Your task to perform on an android device: delete browsing data in the chrome app Image 0: 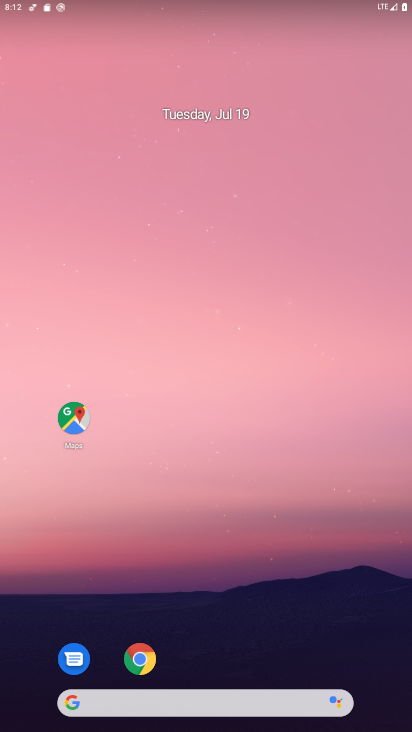
Step 0: click (145, 658)
Your task to perform on an android device: delete browsing data in the chrome app Image 1: 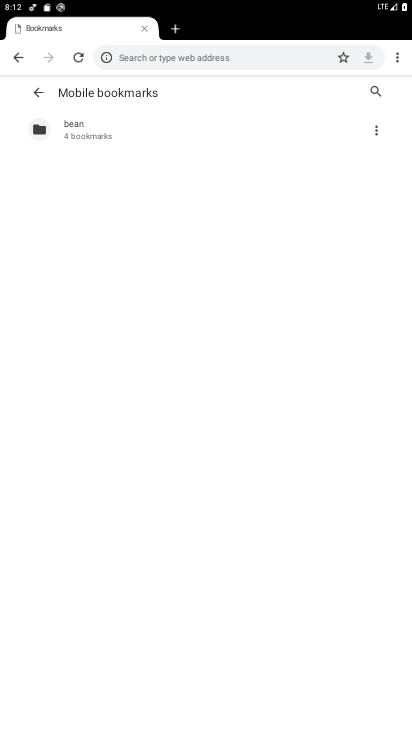
Step 1: click (394, 51)
Your task to perform on an android device: delete browsing data in the chrome app Image 2: 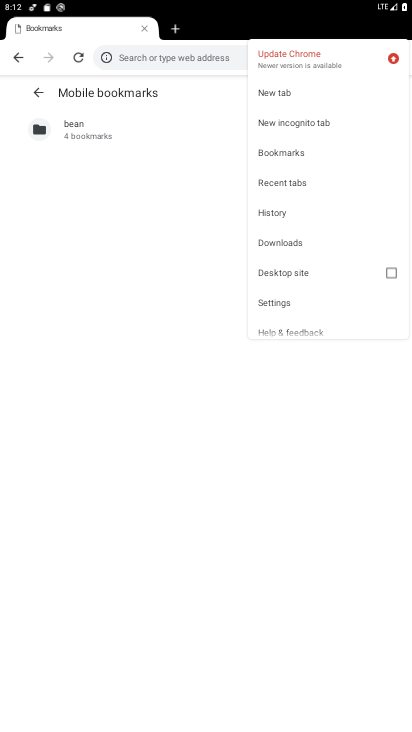
Step 2: click (281, 209)
Your task to perform on an android device: delete browsing data in the chrome app Image 3: 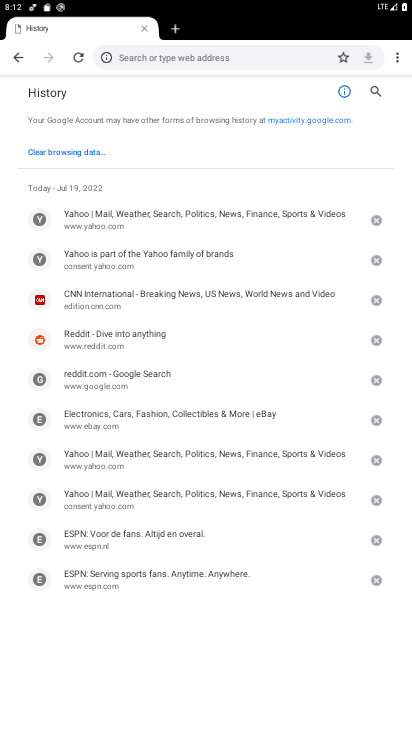
Step 3: click (61, 149)
Your task to perform on an android device: delete browsing data in the chrome app Image 4: 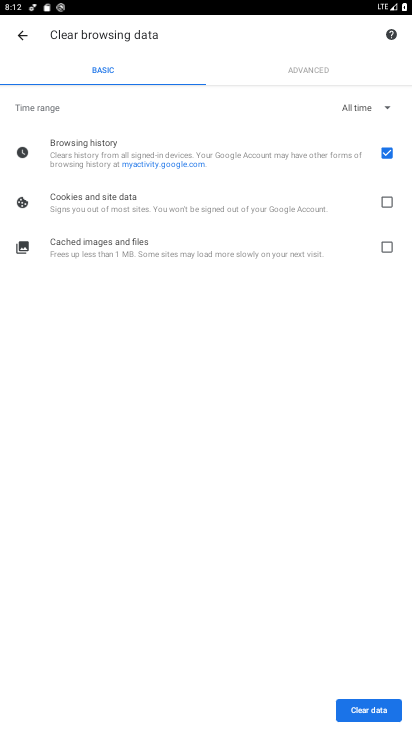
Step 4: click (374, 193)
Your task to perform on an android device: delete browsing data in the chrome app Image 5: 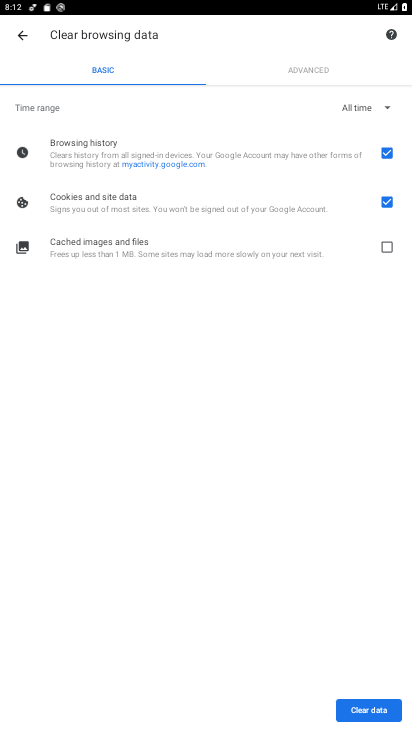
Step 5: click (380, 245)
Your task to perform on an android device: delete browsing data in the chrome app Image 6: 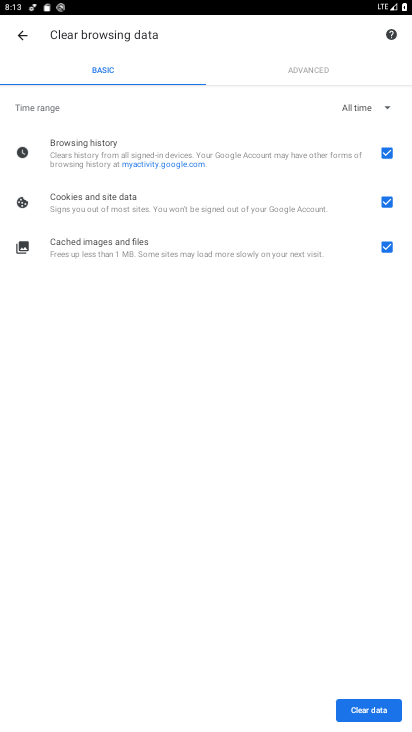
Step 6: click (377, 705)
Your task to perform on an android device: delete browsing data in the chrome app Image 7: 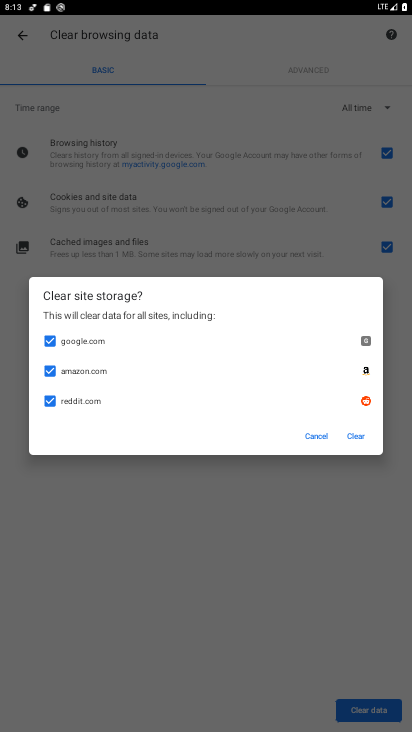
Step 7: click (348, 436)
Your task to perform on an android device: delete browsing data in the chrome app Image 8: 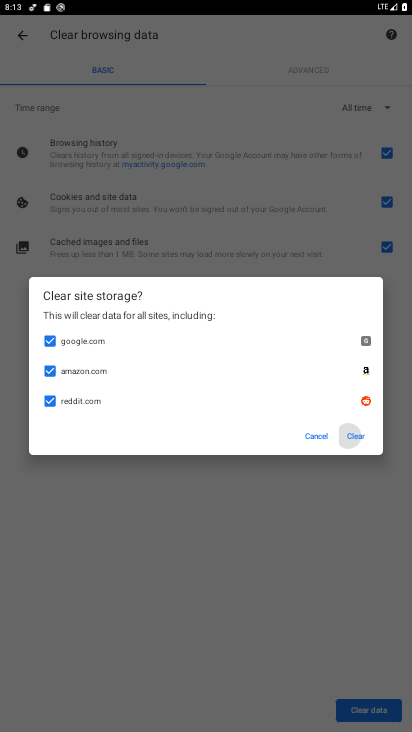
Step 8: click (349, 437)
Your task to perform on an android device: delete browsing data in the chrome app Image 9: 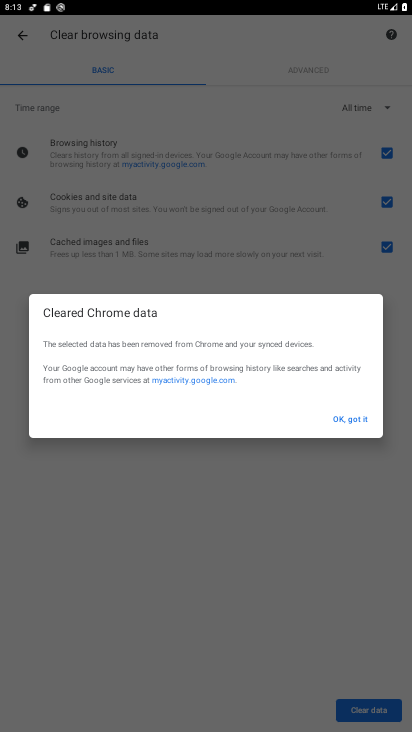
Step 9: click (346, 422)
Your task to perform on an android device: delete browsing data in the chrome app Image 10: 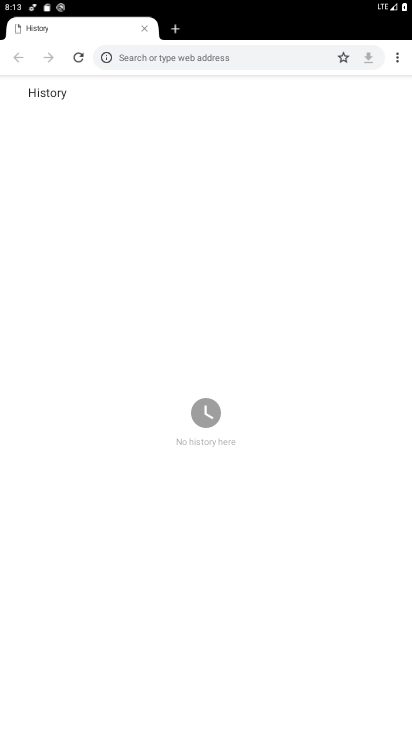
Step 10: task complete